Your task to perform on an android device: Open my contact list Image 0: 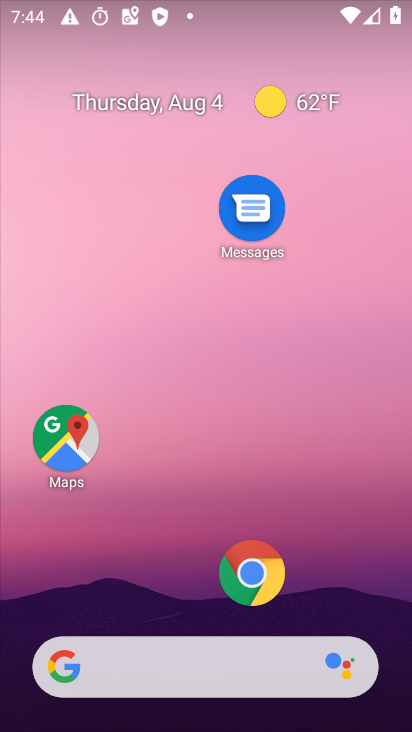
Step 0: press home button
Your task to perform on an android device: Open my contact list Image 1: 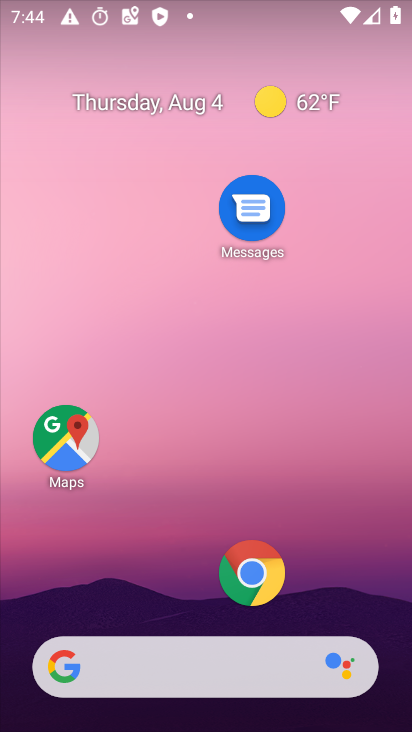
Step 1: drag from (146, 543) to (171, 22)
Your task to perform on an android device: Open my contact list Image 2: 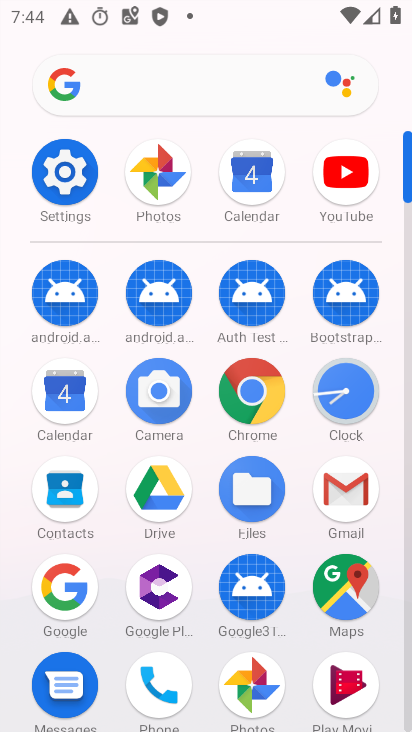
Step 2: drag from (209, 535) to (227, 229)
Your task to perform on an android device: Open my contact list Image 3: 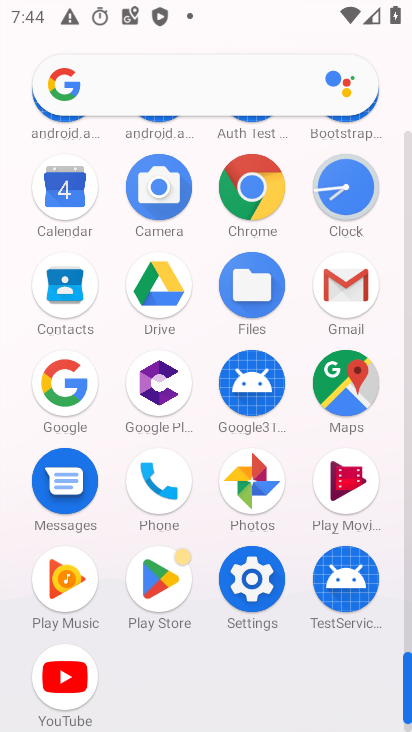
Step 3: click (65, 285)
Your task to perform on an android device: Open my contact list Image 4: 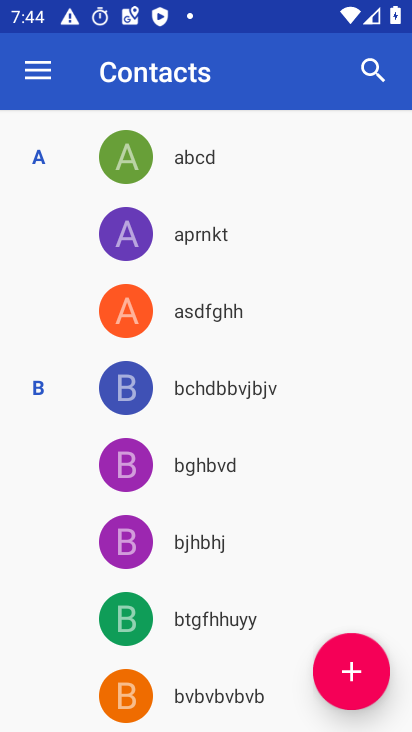
Step 4: task complete